Your task to perform on an android device: Open Google Chrome and open the bookmarks view Image 0: 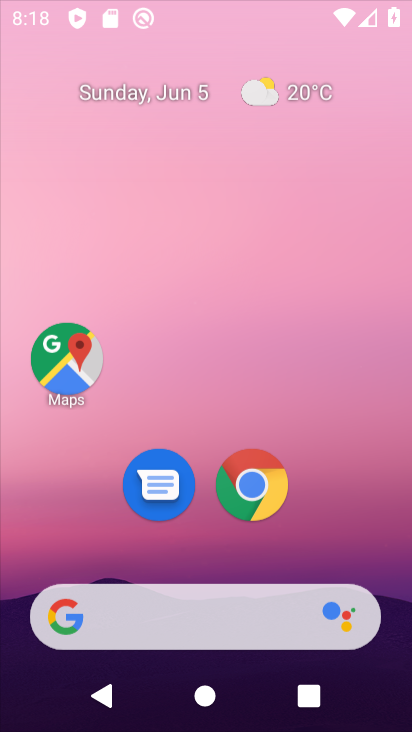
Step 0: press home button
Your task to perform on an android device: Open Google Chrome and open the bookmarks view Image 1: 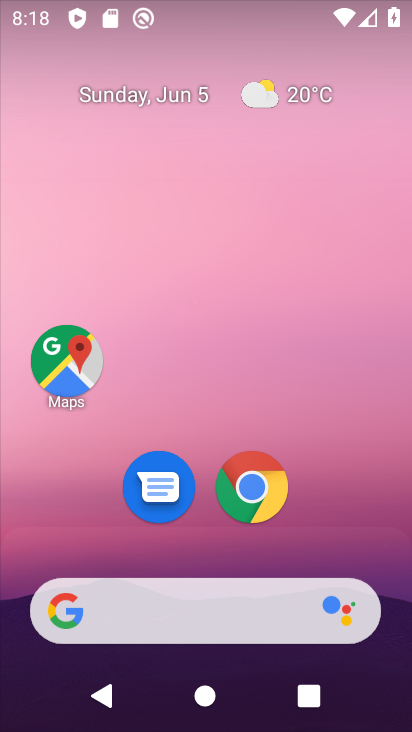
Step 1: drag from (194, 566) to (211, 165)
Your task to perform on an android device: Open Google Chrome and open the bookmarks view Image 2: 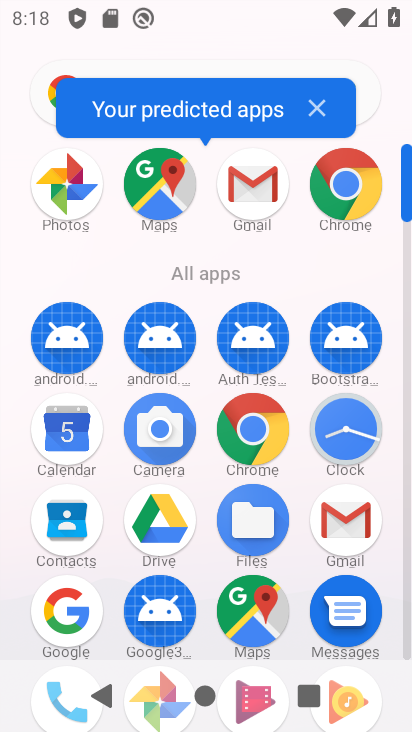
Step 2: click (266, 414)
Your task to perform on an android device: Open Google Chrome and open the bookmarks view Image 3: 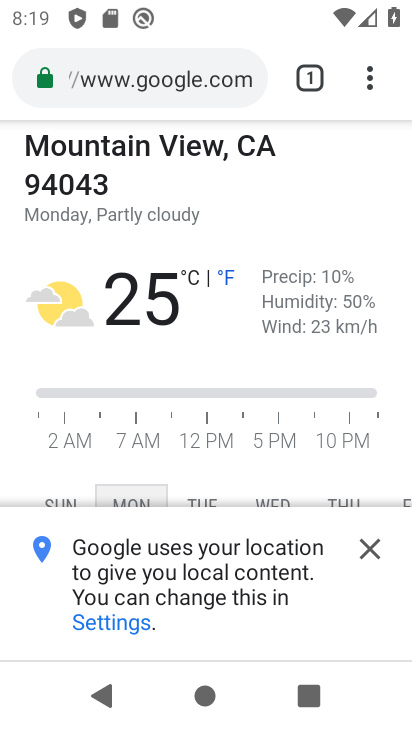
Step 3: click (373, 70)
Your task to perform on an android device: Open Google Chrome and open the bookmarks view Image 4: 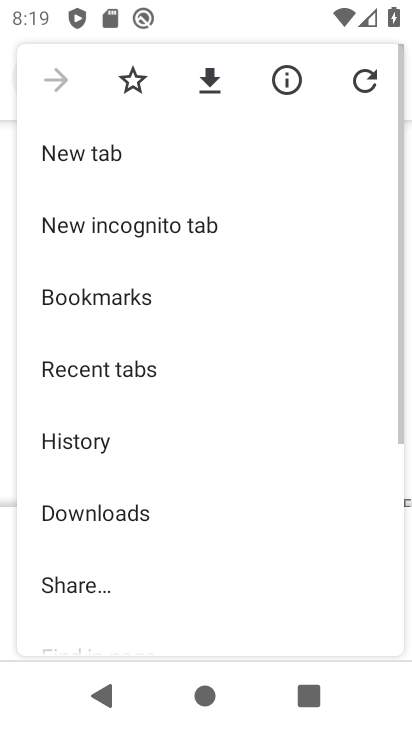
Step 4: click (121, 60)
Your task to perform on an android device: Open Google Chrome and open the bookmarks view Image 5: 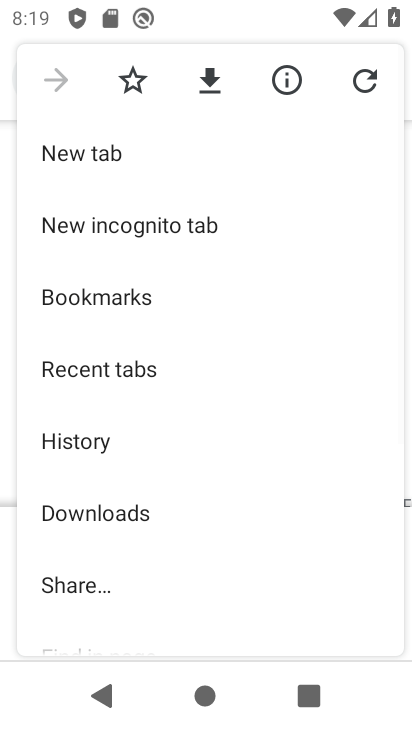
Step 5: click (133, 78)
Your task to perform on an android device: Open Google Chrome and open the bookmarks view Image 6: 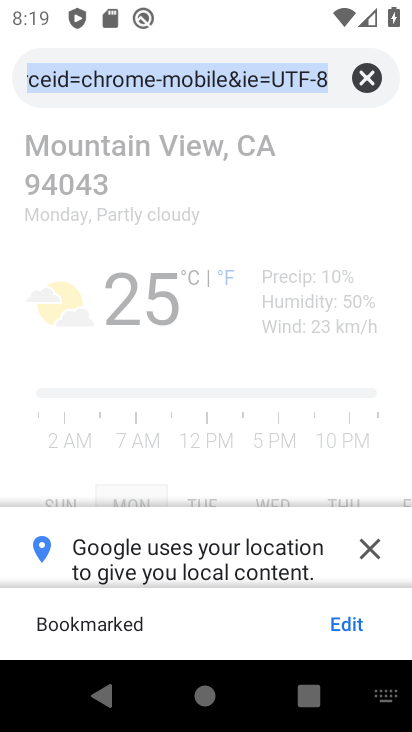
Step 6: click (365, 78)
Your task to perform on an android device: Open Google Chrome and open the bookmarks view Image 7: 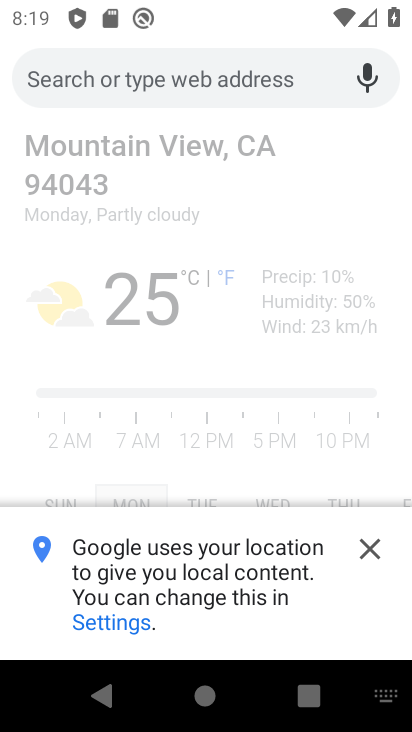
Step 7: click (365, 548)
Your task to perform on an android device: Open Google Chrome and open the bookmarks view Image 8: 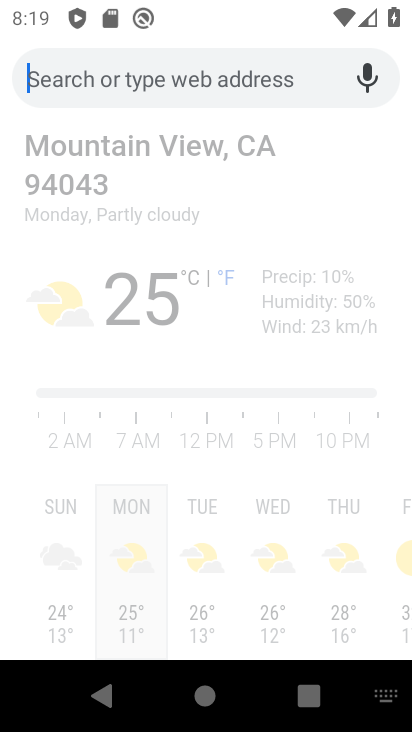
Step 8: press back button
Your task to perform on an android device: Open Google Chrome and open the bookmarks view Image 9: 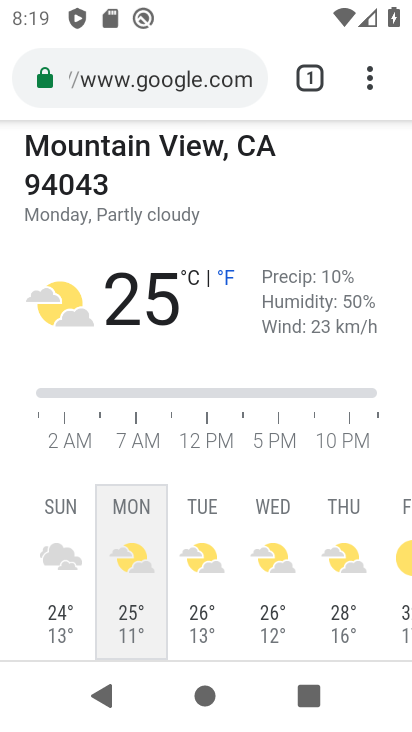
Step 9: click (371, 69)
Your task to perform on an android device: Open Google Chrome and open the bookmarks view Image 10: 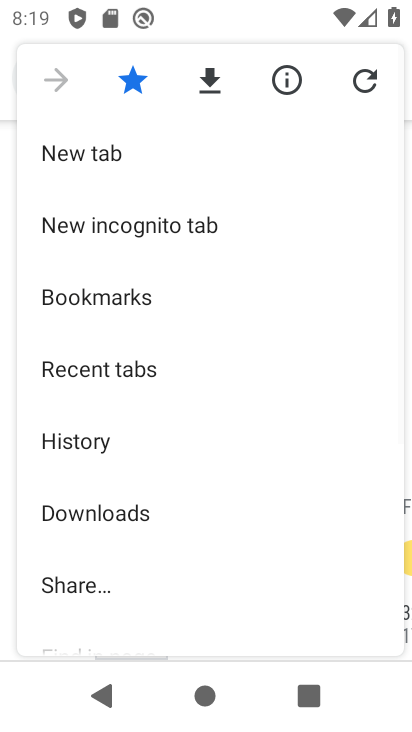
Step 10: click (148, 301)
Your task to perform on an android device: Open Google Chrome and open the bookmarks view Image 11: 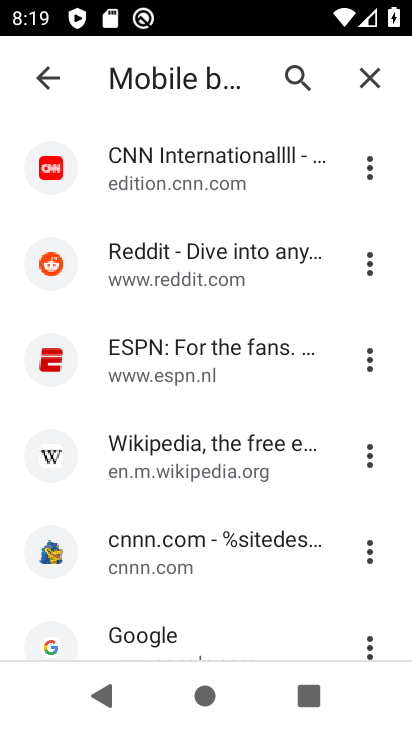
Step 11: task complete